Your task to perform on an android device: choose inbox layout in the gmail app Image 0: 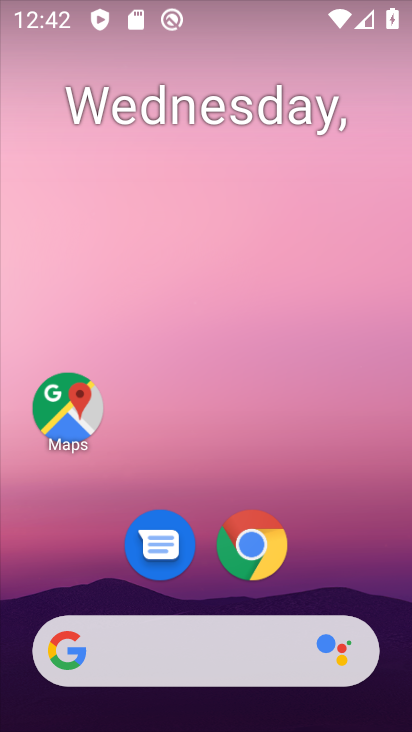
Step 0: drag from (338, 525) to (391, 158)
Your task to perform on an android device: choose inbox layout in the gmail app Image 1: 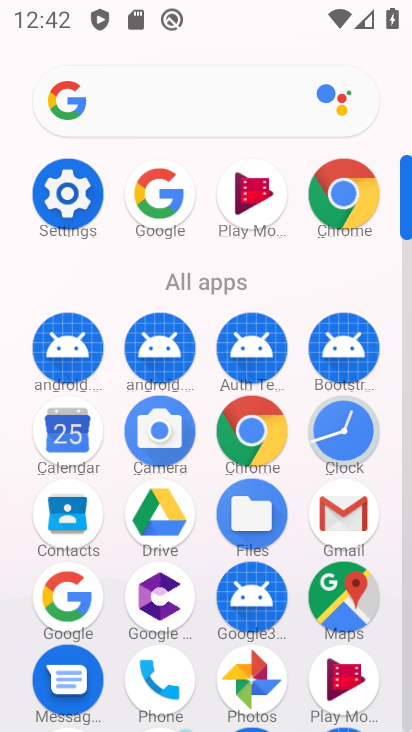
Step 1: click (338, 503)
Your task to perform on an android device: choose inbox layout in the gmail app Image 2: 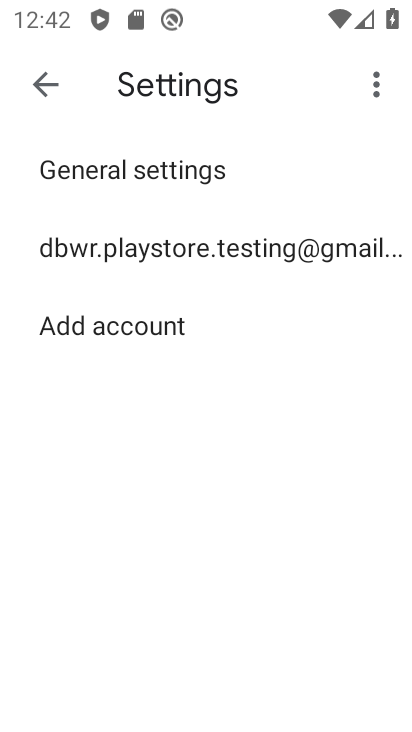
Step 2: click (42, 75)
Your task to perform on an android device: choose inbox layout in the gmail app Image 3: 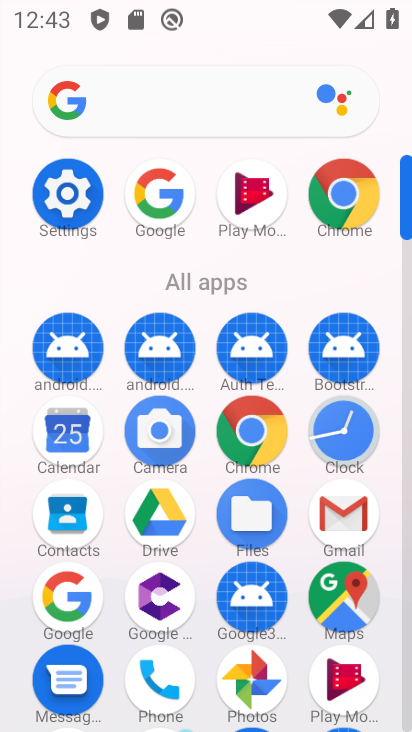
Step 3: click (339, 516)
Your task to perform on an android device: choose inbox layout in the gmail app Image 4: 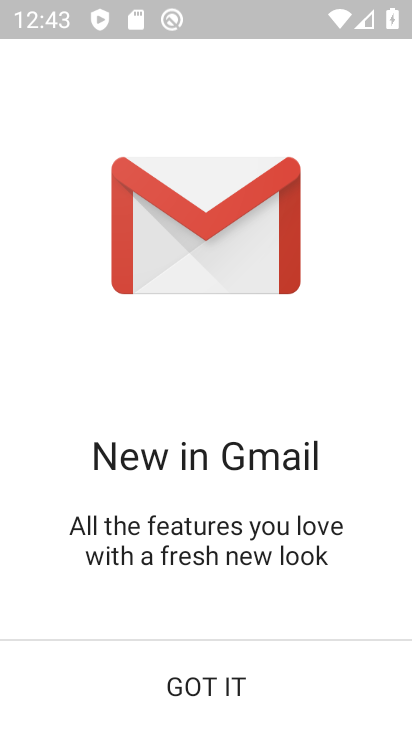
Step 4: click (194, 684)
Your task to perform on an android device: choose inbox layout in the gmail app Image 5: 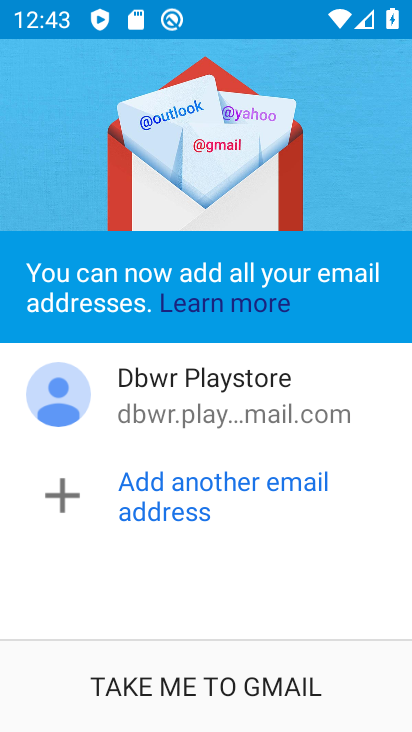
Step 5: click (215, 689)
Your task to perform on an android device: choose inbox layout in the gmail app Image 6: 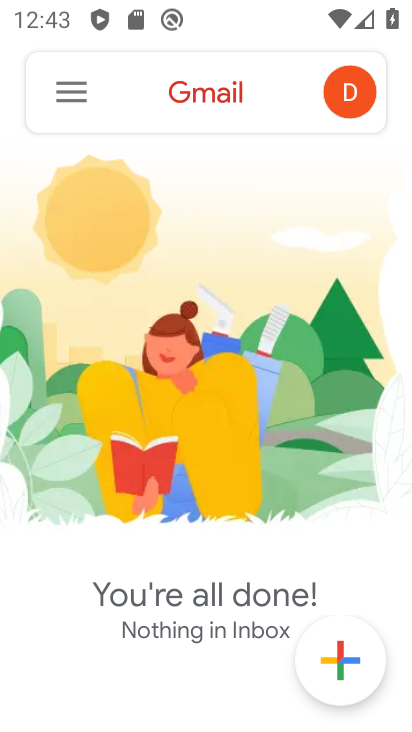
Step 6: click (83, 89)
Your task to perform on an android device: choose inbox layout in the gmail app Image 7: 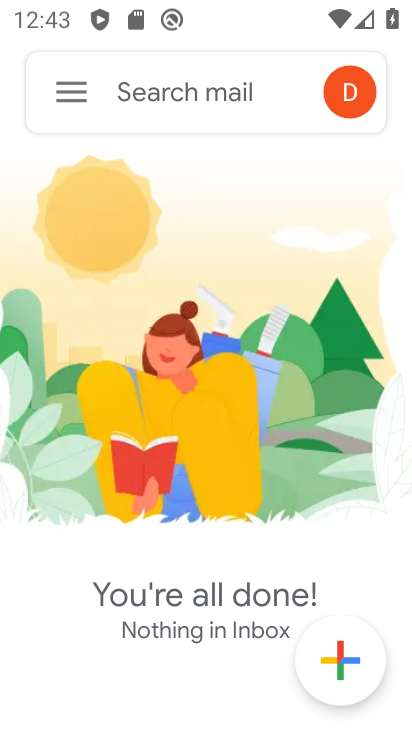
Step 7: click (62, 79)
Your task to perform on an android device: choose inbox layout in the gmail app Image 8: 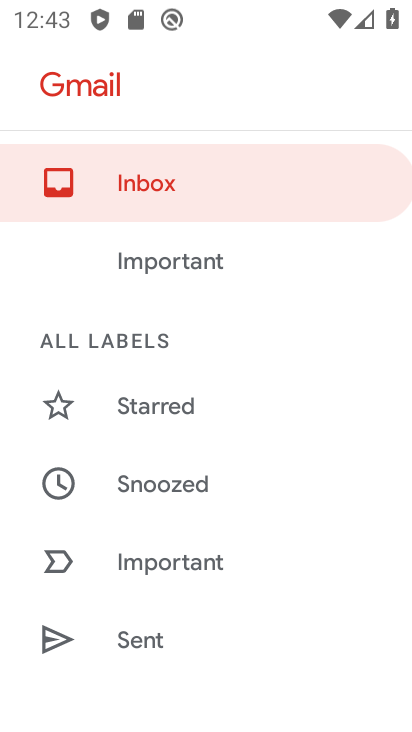
Step 8: drag from (194, 608) to (294, 235)
Your task to perform on an android device: choose inbox layout in the gmail app Image 9: 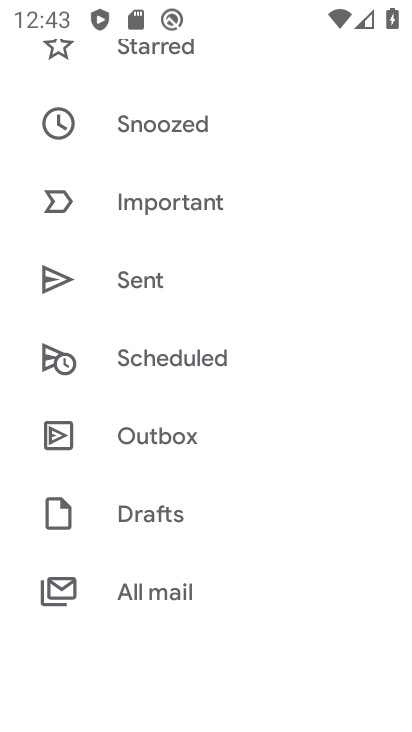
Step 9: drag from (199, 513) to (334, 281)
Your task to perform on an android device: choose inbox layout in the gmail app Image 10: 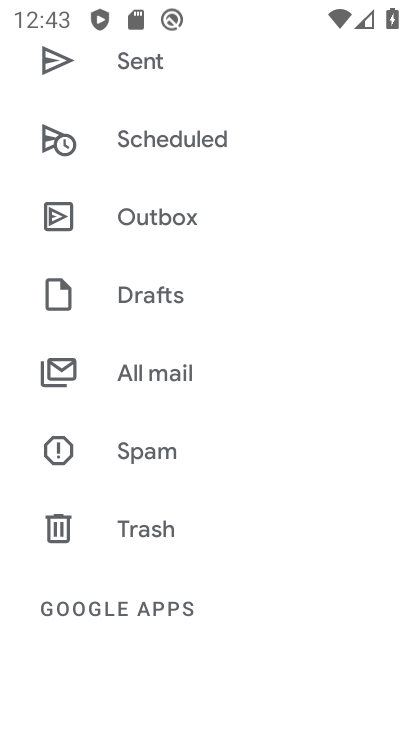
Step 10: drag from (161, 583) to (350, 312)
Your task to perform on an android device: choose inbox layout in the gmail app Image 11: 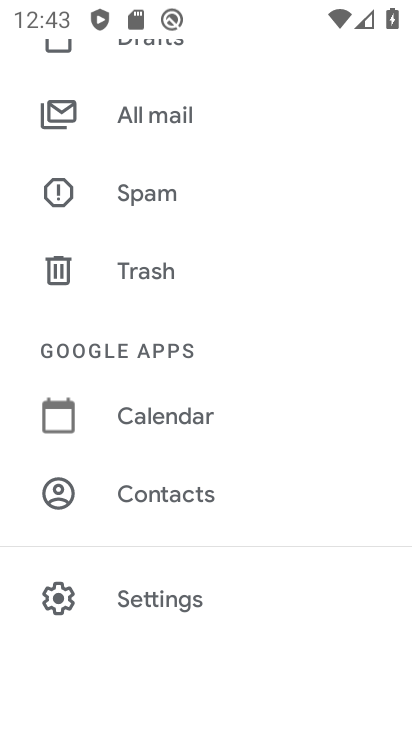
Step 11: click (156, 600)
Your task to perform on an android device: choose inbox layout in the gmail app Image 12: 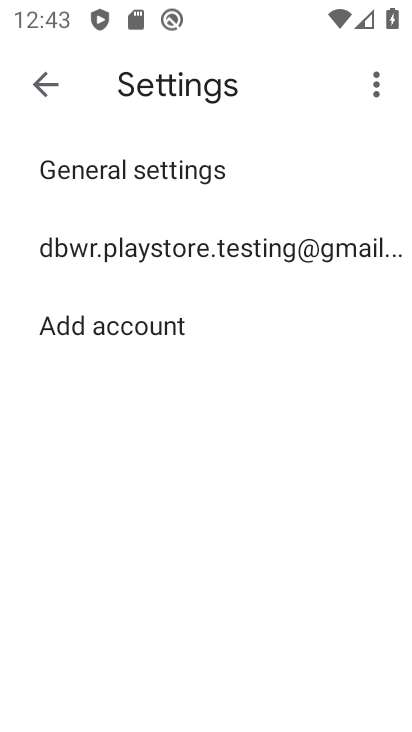
Step 12: click (208, 269)
Your task to perform on an android device: choose inbox layout in the gmail app Image 13: 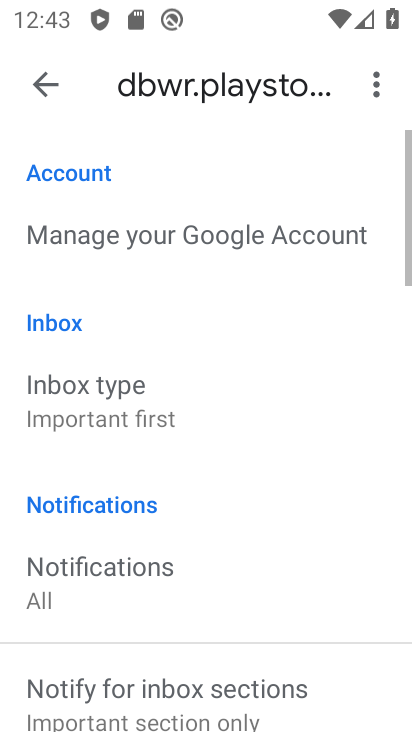
Step 13: click (116, 392)
Your task to perform on an android device: choose inbox layout in the gmail app Image 14: 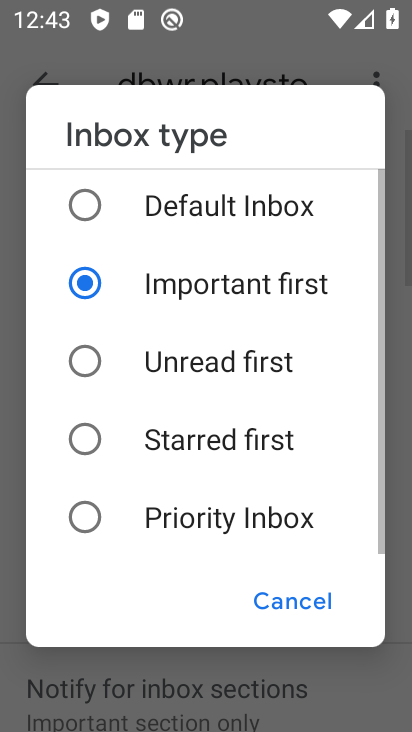
Step 14: task complete